Your task to perform on an android device: turn on airplane mode Image 0: 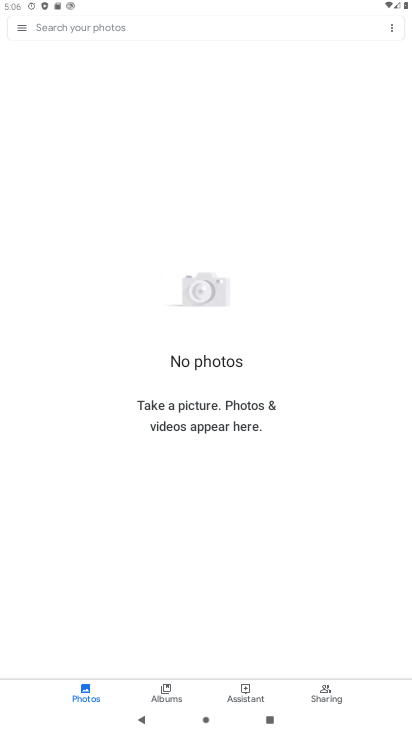
Step 0: press home button
Your task to perform on an android device: turn on airplane mode Image 1: 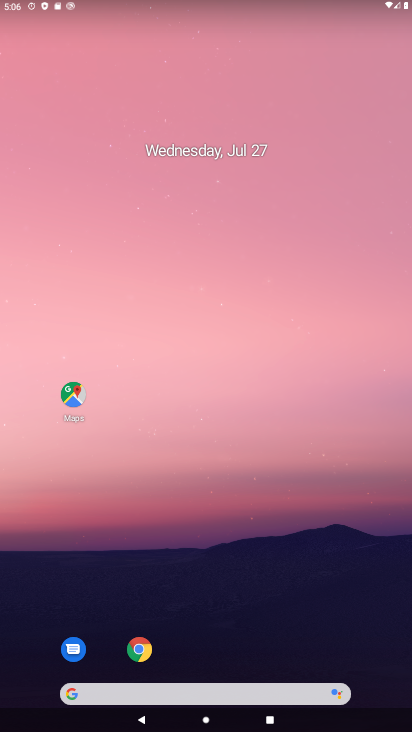
Step 1: drag from (175, 690) to (271, 78)
Your task to perform on an android device: turn on airplane mode Image 2: 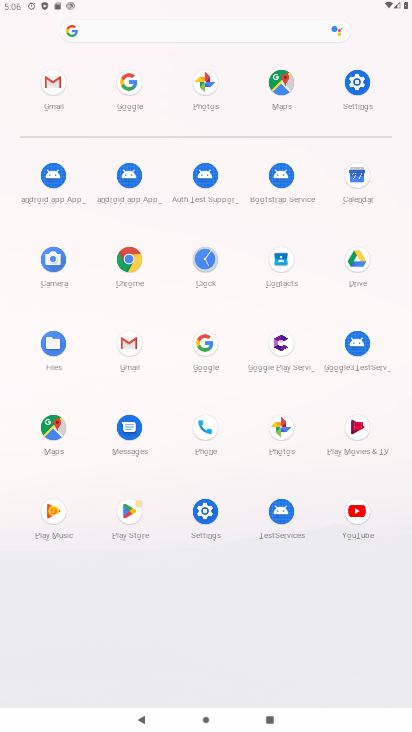
Step 2: click (356, 80)
Your task to perform on an android device: turn on airplane mode Image 3: 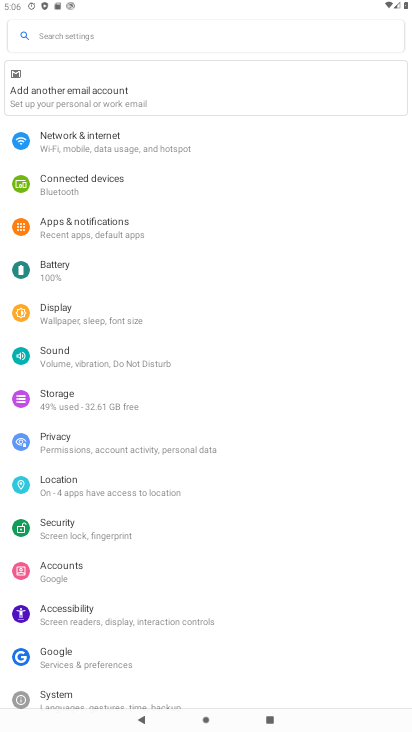
Step 3: click (95, 146)
Your task to perform on an android device: turn on airplane mode Image 4: 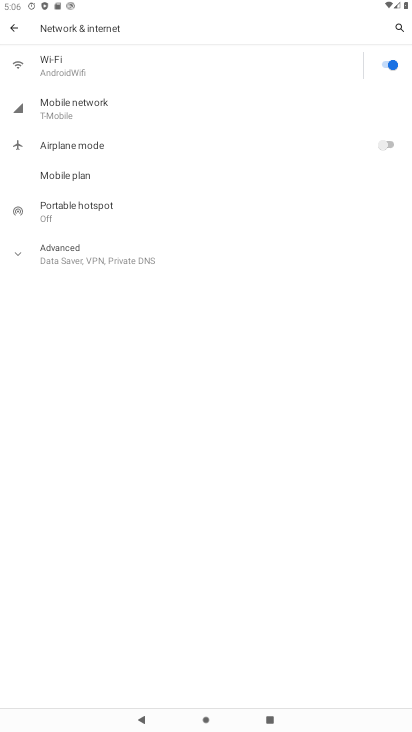
Step 4: click (382, 145)
Your task to perform on an android device: turn on airplane mode Image 5: 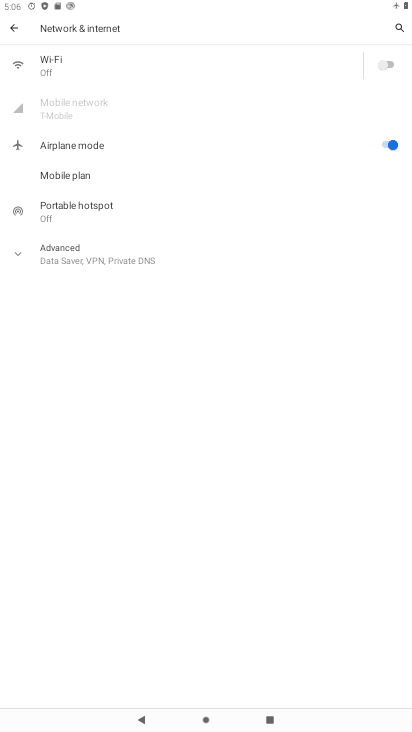
Step 5: task complete